Your task to perform on an android device: Open calendar and show me the third week of next month Image 0: 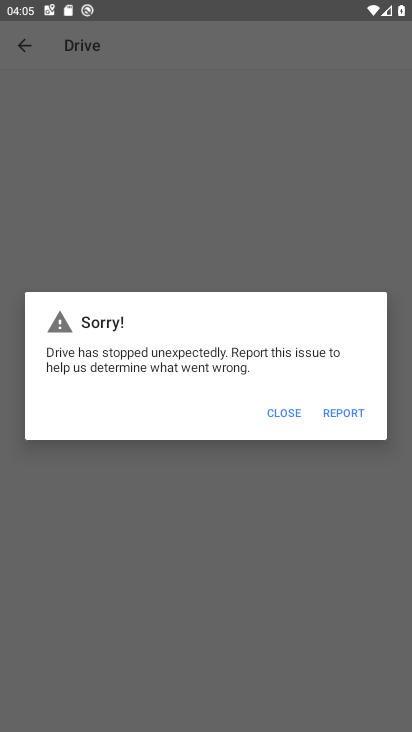
Step 0: press home button
Your task to perform on an android device: Open calendar and show me the third week of next month Image 1: 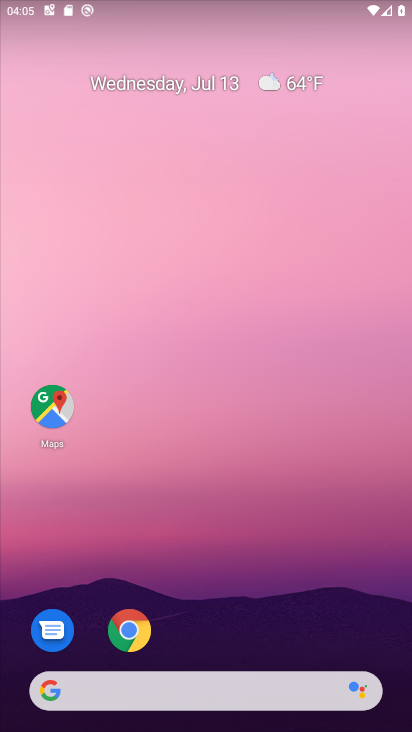
Step 1: click (170, 73)
Your task to perform on an android device: Open calendar and show me the third week of next month Image 2: 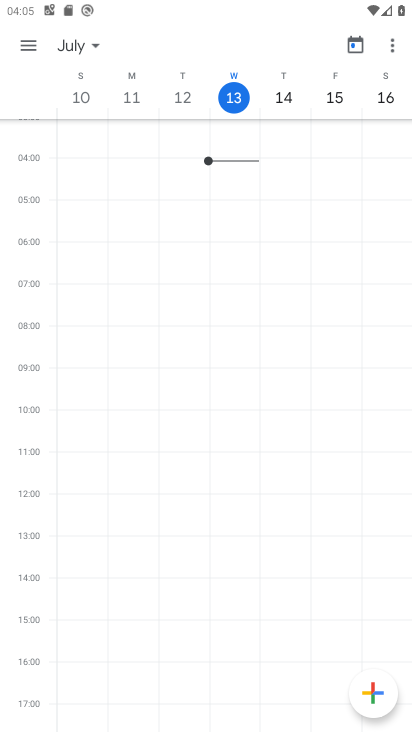
Step 2: click (72, 50)
Your task to perform on an android device: Open calendar and show me the third week of next month Image 3: 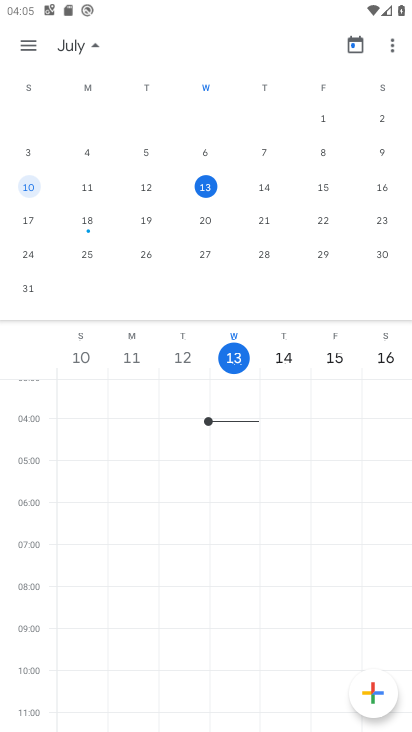
Step 3: drag from (368, 278) to (39, 259)
Your task to perform on an android device: Open calendar and show me the third week of next month Image 4: 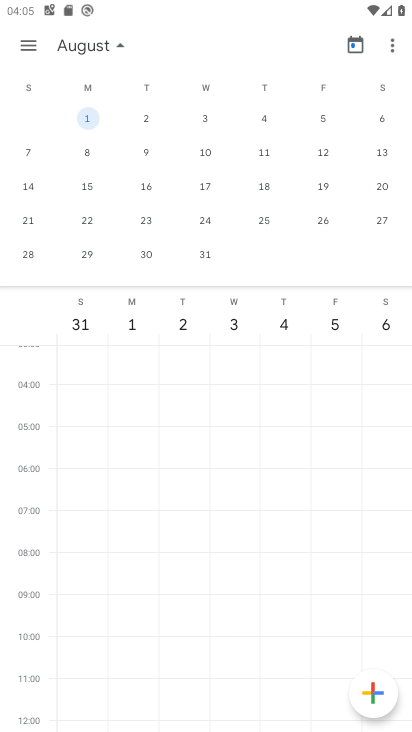
Step 4: click (329, 184)
Your task to perform on an android device: Open calendar and show me the third week of next month Image 5: 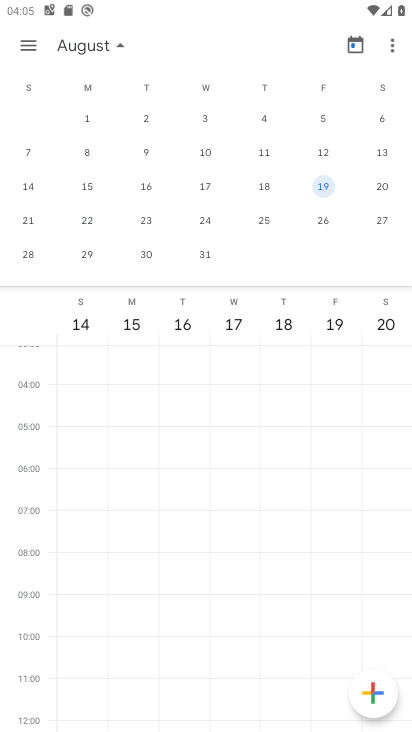
Step 5: task complete